Your task to perform on an android device: Set the phone to "Do not disturb". Image 0: 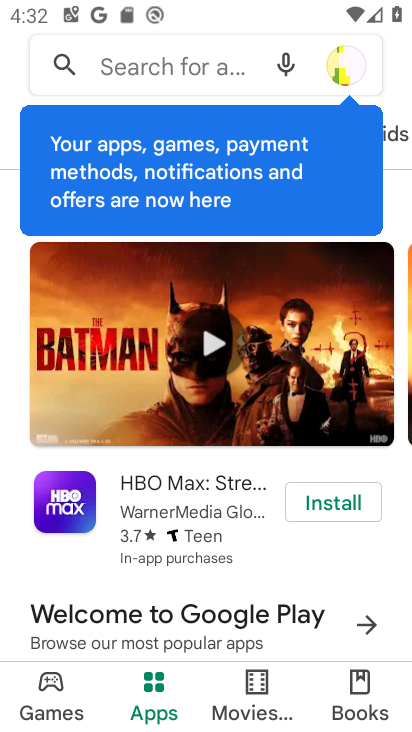
Step 0: press home button
Your task to perform on an android device: Set the phone to "Do not disturb". Image 1: 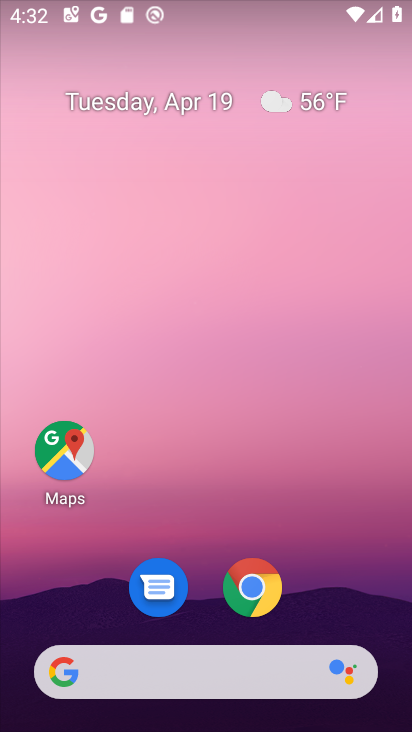
Step 1: drag from (209, 724) to (193, 36)
Your task to perform on an android device: Set the phone to "Do not disturb". Image 2: 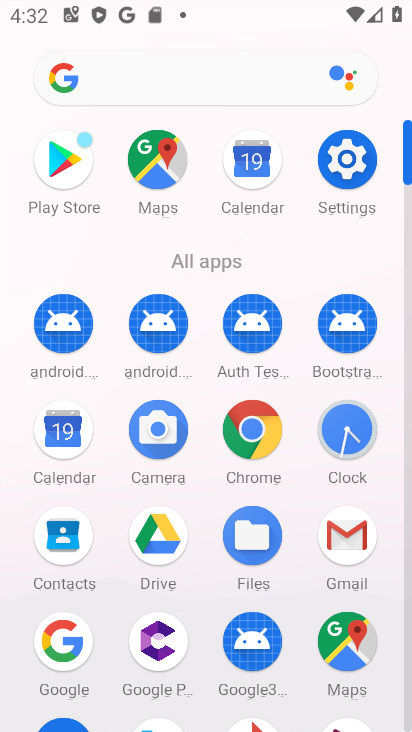
Step 2: click (345, 159)
Your task to perform on an android device: Set the phone to "Do not disturb". Image 3: 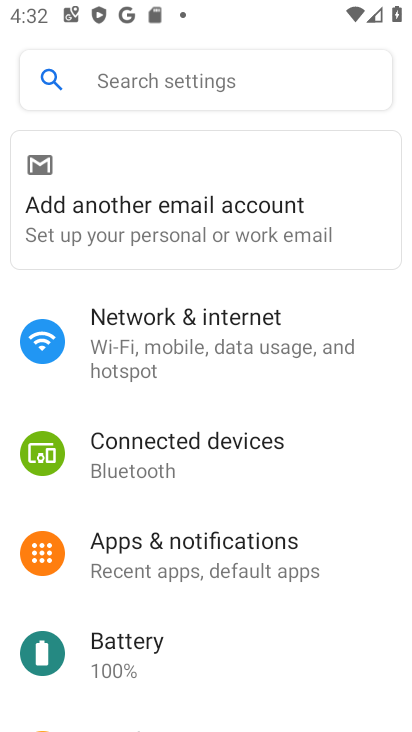
Step 3: drag from (217, 619) to (221, 258)
Your task to perform on an android device: Set the phone to "Do not disturb". Image 4: 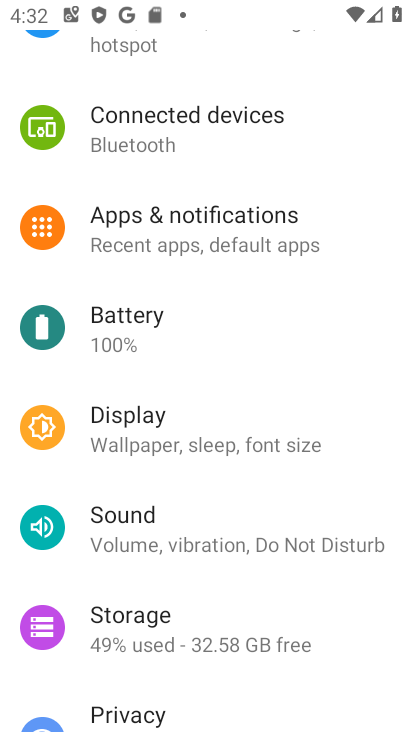
Step 4: click (246, 543)
Your task to perform on an android device: Set the phone to "Do not disturb". Image 5: 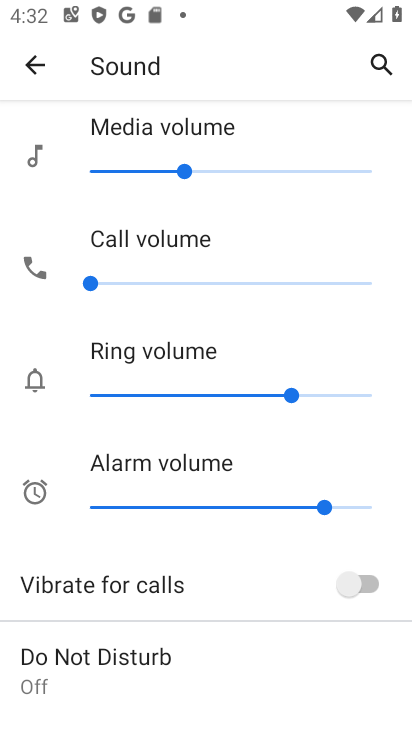
Step 5: drag from (205, 681) to (231, 210)
Your task to perform on an android device: Set the phone to "Do not disturb". Image 6: 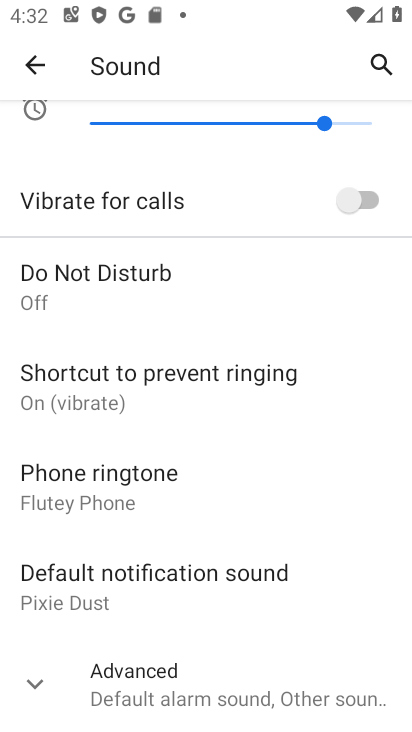
Step 6: click (162, 270)
Your task to perform on an android device: Set the phone to "Do not disturb". Image 7: 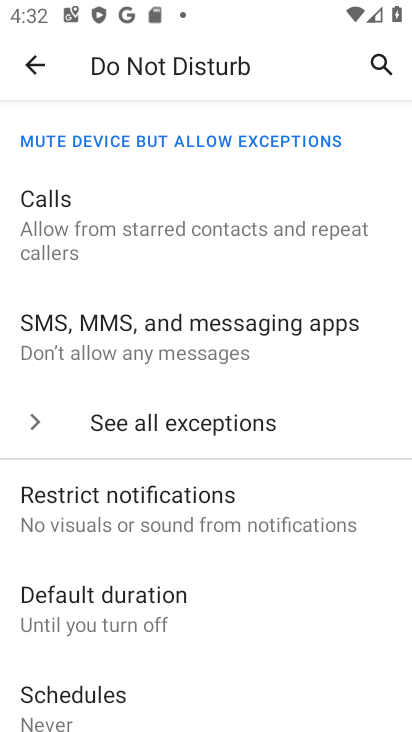
Step 7: drag from (214, 673) to (229, 123)
Your task to perform on an android device: Set the phone to "Do not disturb". Image 8: 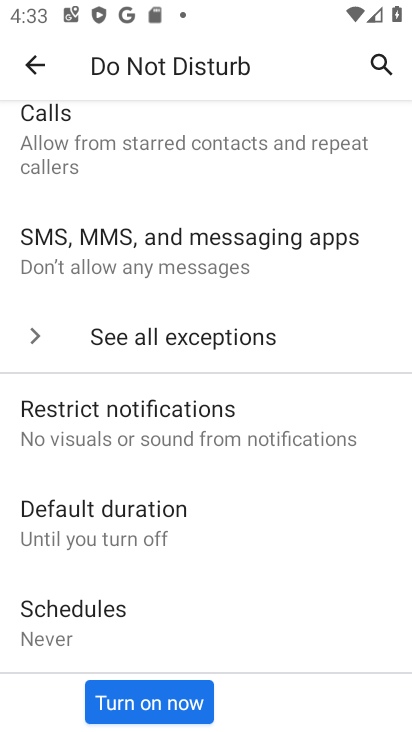
Step 8: click (175, 701)
Your task to perform on an android device: Set the phone to "Do not disturb". Image 9: 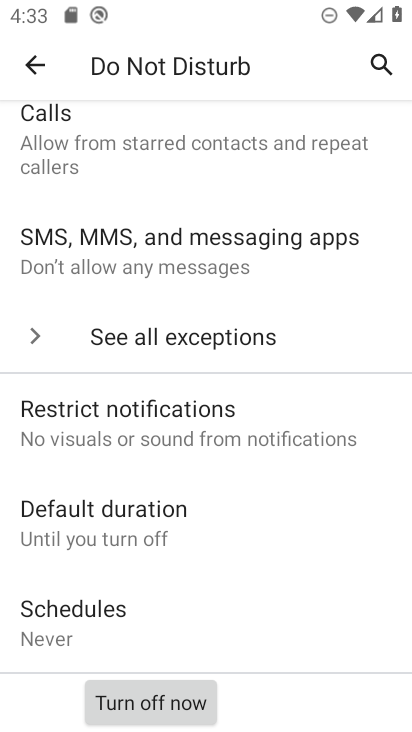
Step 9: task complete